Your task to perform on an android device: set the timer Image 0: 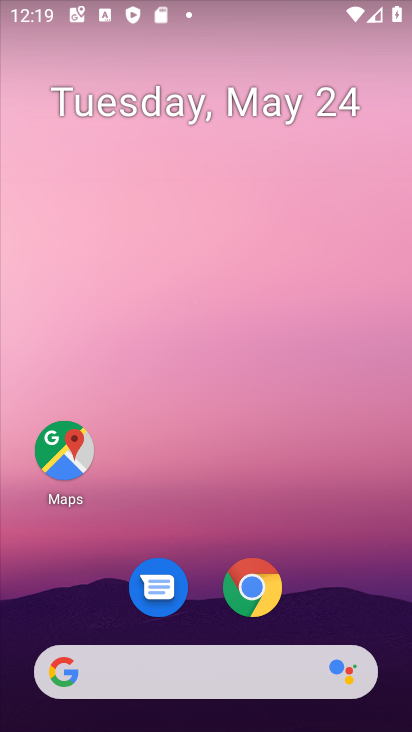
Step 0: drag from (244, 717) to (346, 49)
Your task to perform on an android device: set the timer Image 1: 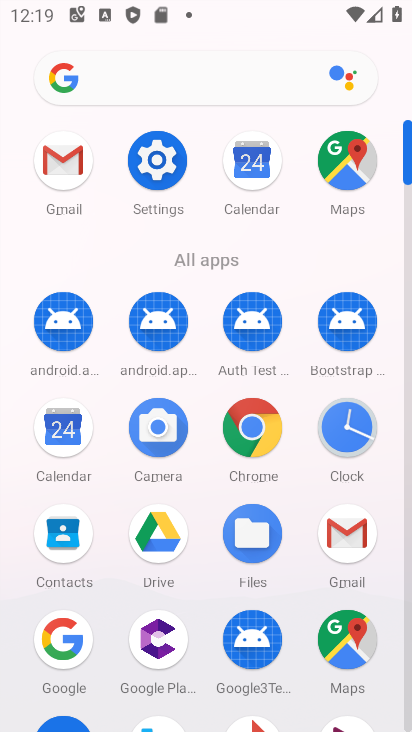
Step 1: click (339, 427)
Your task to perform on an android device: set the timer Image 2: 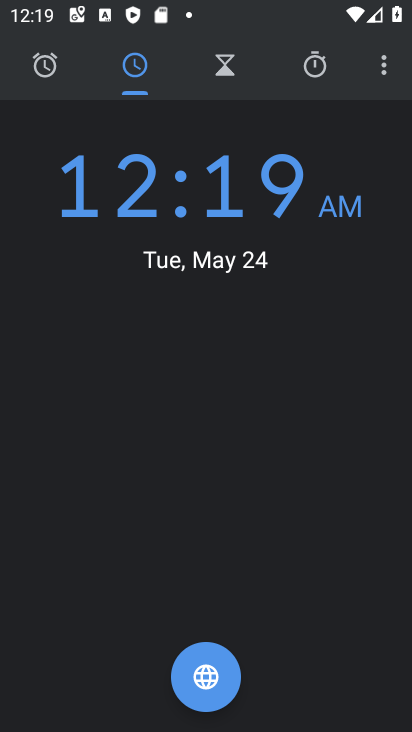
Step 2: click (313, 71)
Your task to perform on an android device: set the timer Image 3: 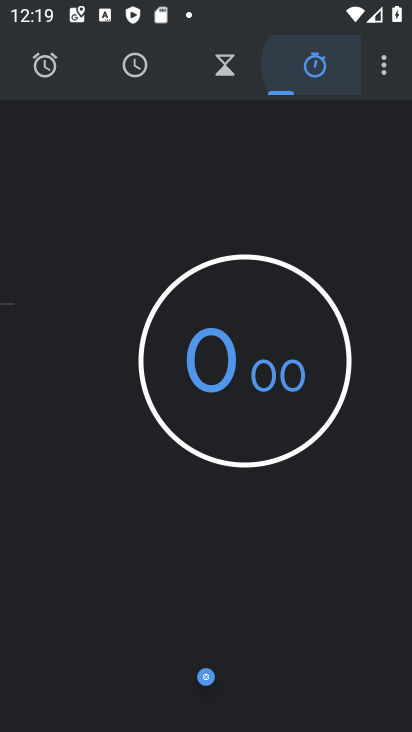
Step 3: click (225, 65)
Your task to perform on an android device: set the timer Image 4: 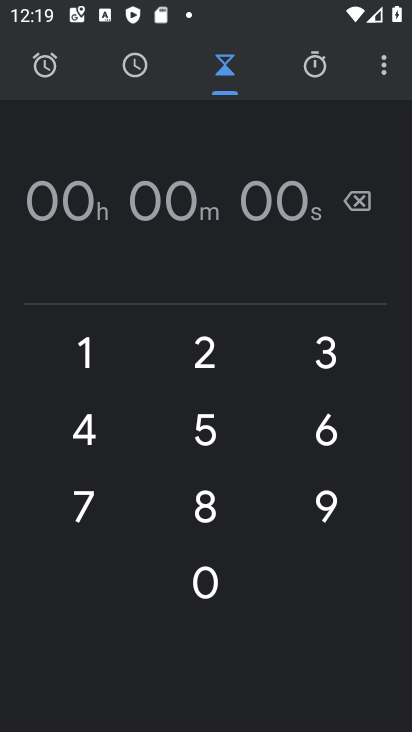
Step 4: click (220, 434)
Your task to perform on an android device: set the timer Image 5: 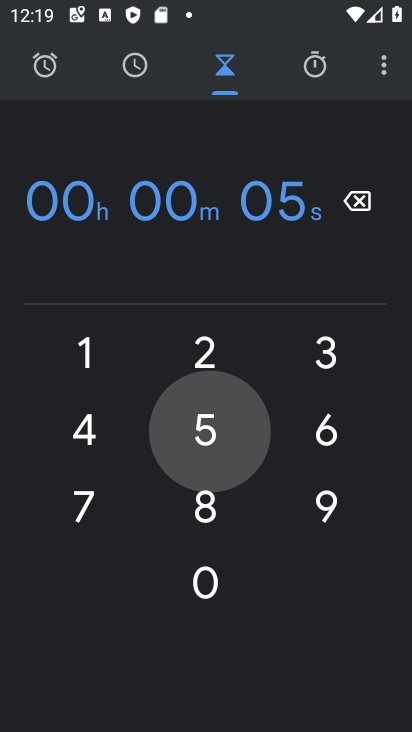
Step 5: click (200, 379)
Your task to perform on an android device: set the timer Image 6: 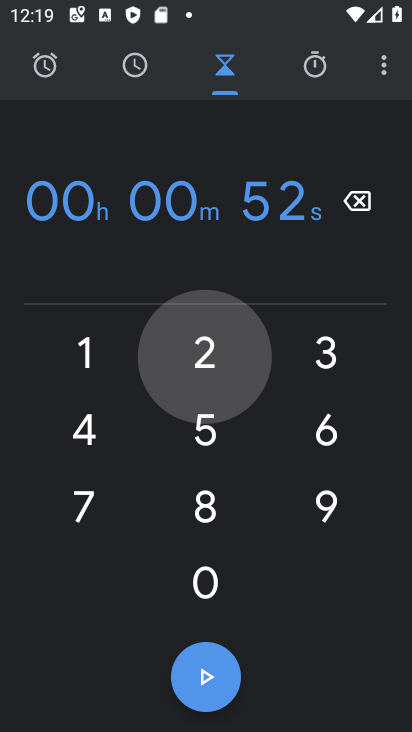
Step 6: click (342, 340)
Your task to perform on an android device: set the timer Image 7: 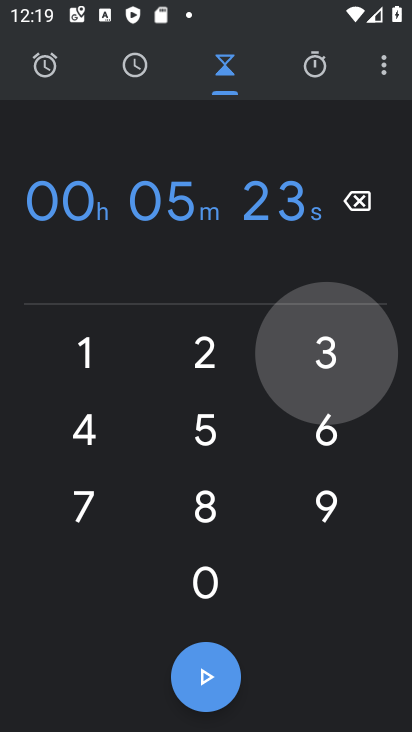
Step 7: click (328, 421)
Your task to perform on an android device: set the timer Image 8: 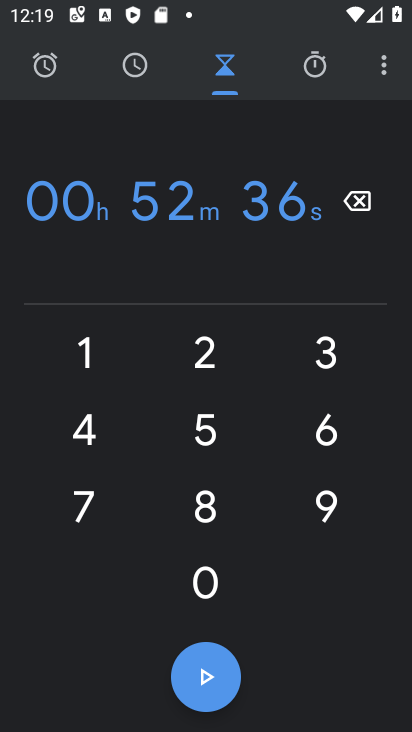
Step 8: task complete